Your task to perform on an android device: Is it going to rain today? Image 0: 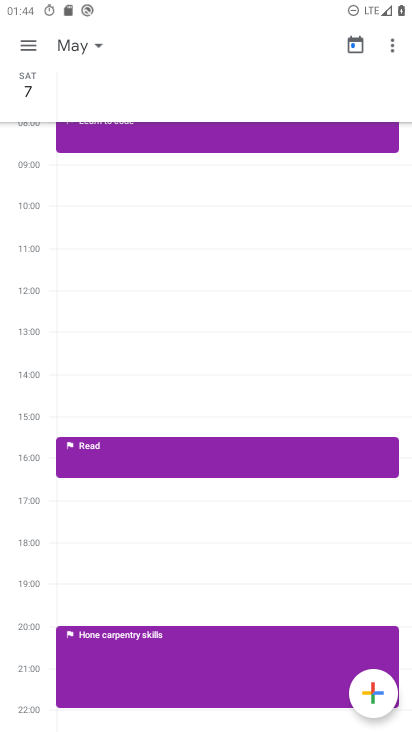
Step 0: press home button
Your task to perform on an android device: Is it going to rain today? Image 1: 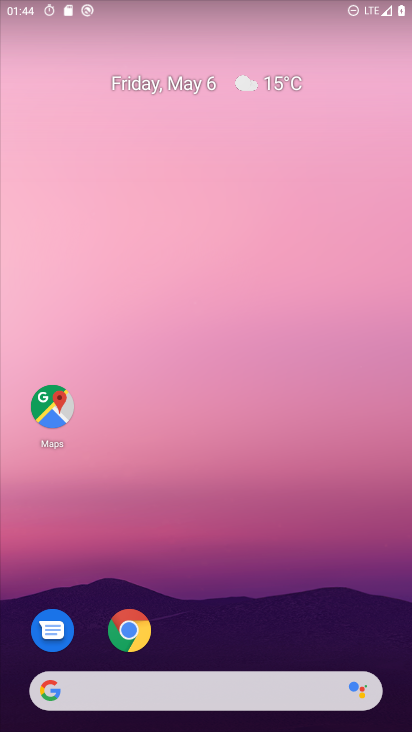
Step 1: click (258, 83)
Your task to perform on an android device: Is it going to rain today? Image 2: 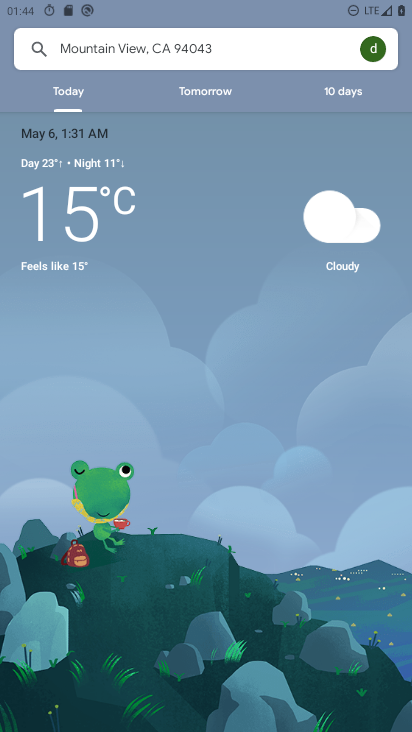
Step 2: task complete